Your task to perform on an android device: Toggle the flashlight Image 0: 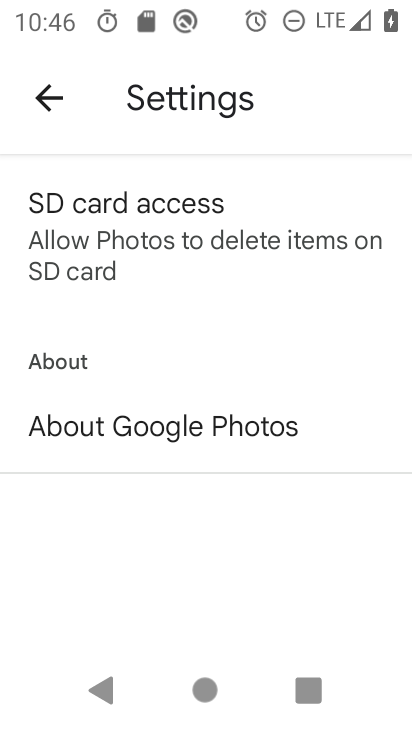
Step 0: drag from (183, 494) to (380, 216)
Your task to perform on an android device: Toggle the flashlight Image 1: 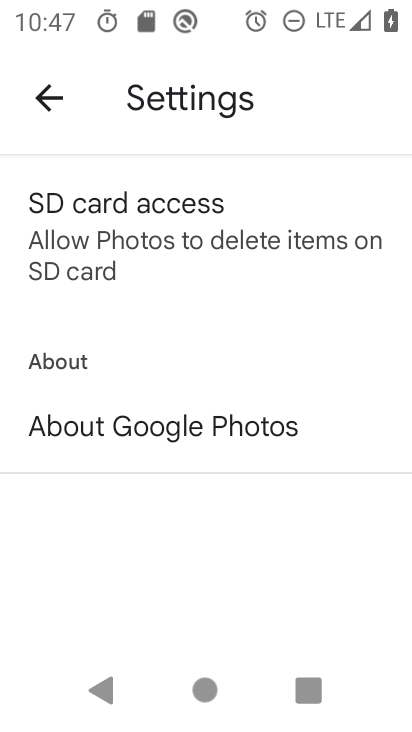
Step 1: click (35, 104)
Your task to perform on an android device: Toggle the flashlight Image 2: 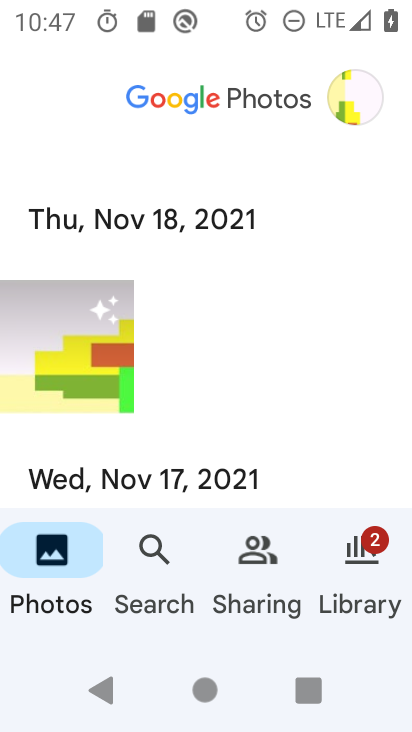
Step 2: press home button
Your task to perform on an android device: Toggle the flashlight Image 3: 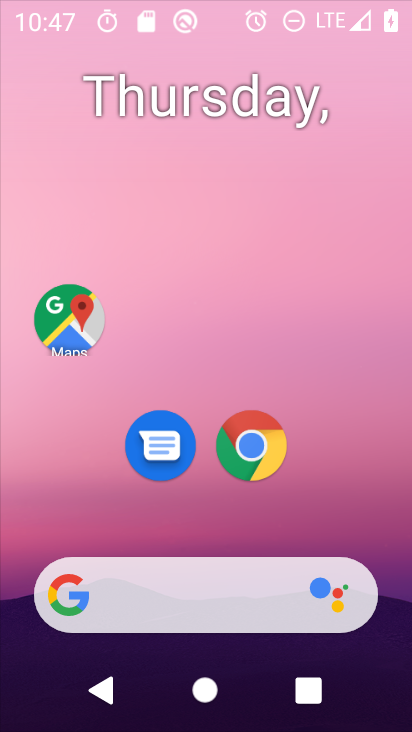
Step 3: drag from (214, 416) to (296, 10)
Your task to perform on an android device: Toggle the flashlight Image 4: 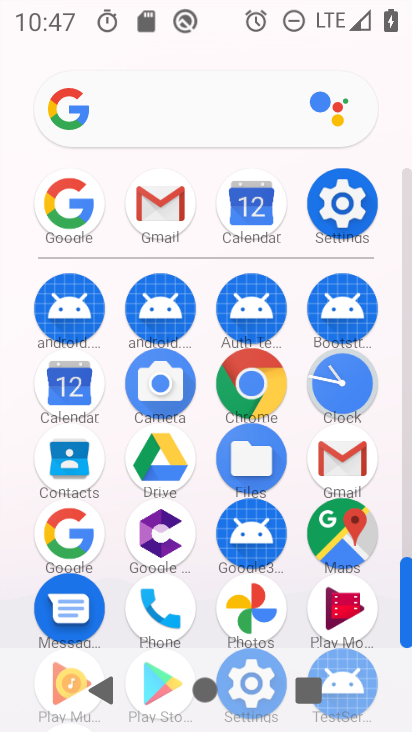
Step 4: click (327, 196)
Your task to perform on an android device: Toggle the flashlight Image 5: 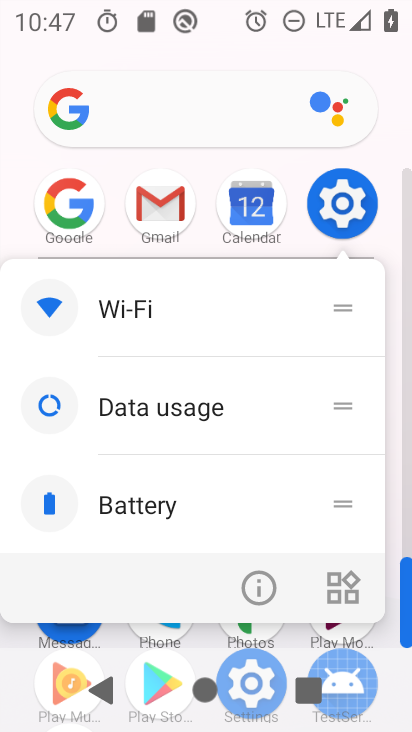
Step 5: click (261, 572)
Your task to perform on an android device: Toggle the flashlight Image 6: 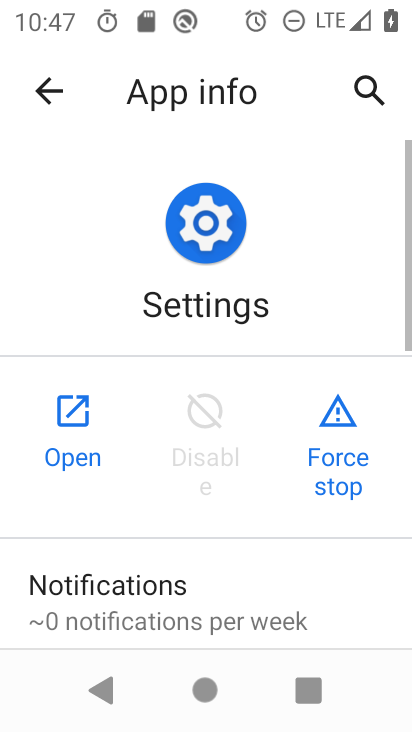
Step 6: click (85, 437)
Your task to perform on an android device: Toggle the flashlight Image 7: 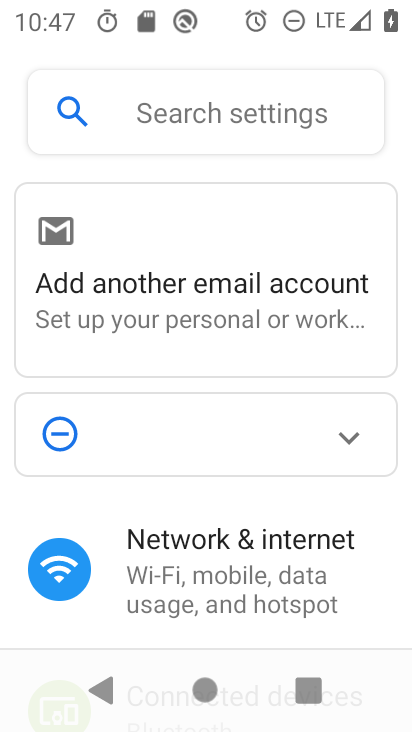
Step 7: click (225, 114)
Your task to perform on an android device: Toggle the flashlight Image 8: 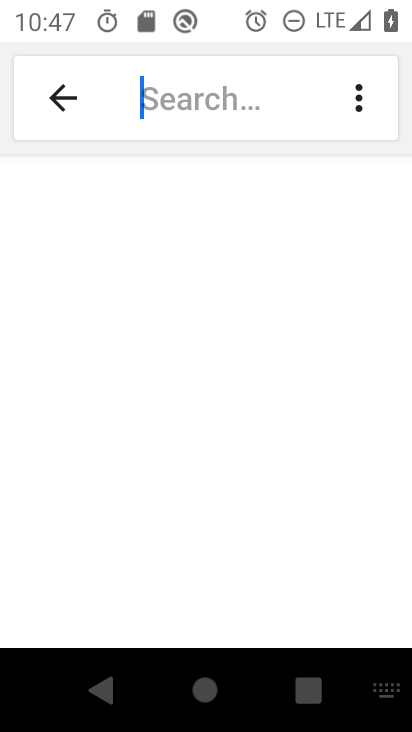
Step 8: type "flashlight"
Your task to perform on an android device: Toggle the flashlight Image 9: 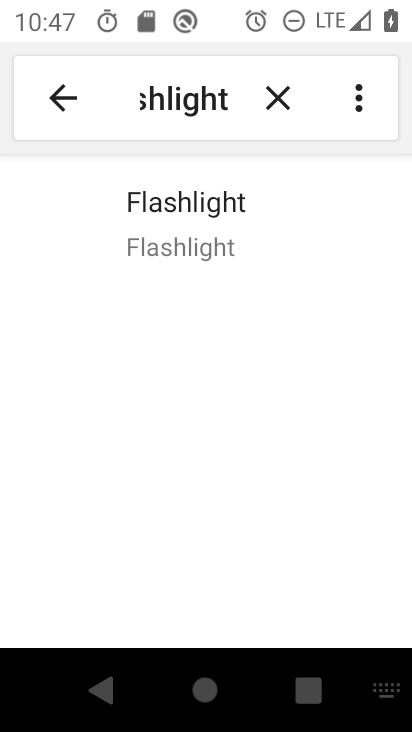
Step 9: click (185, 216)
Your task to perform on an android device: Toggle the flashlight Image 10: 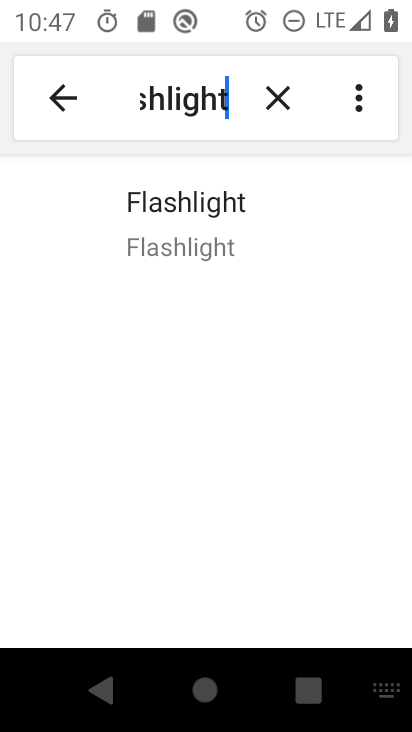
Step 10: task complete